Your task to perform on an android device: View the shopping cart on target.com. Image 0: 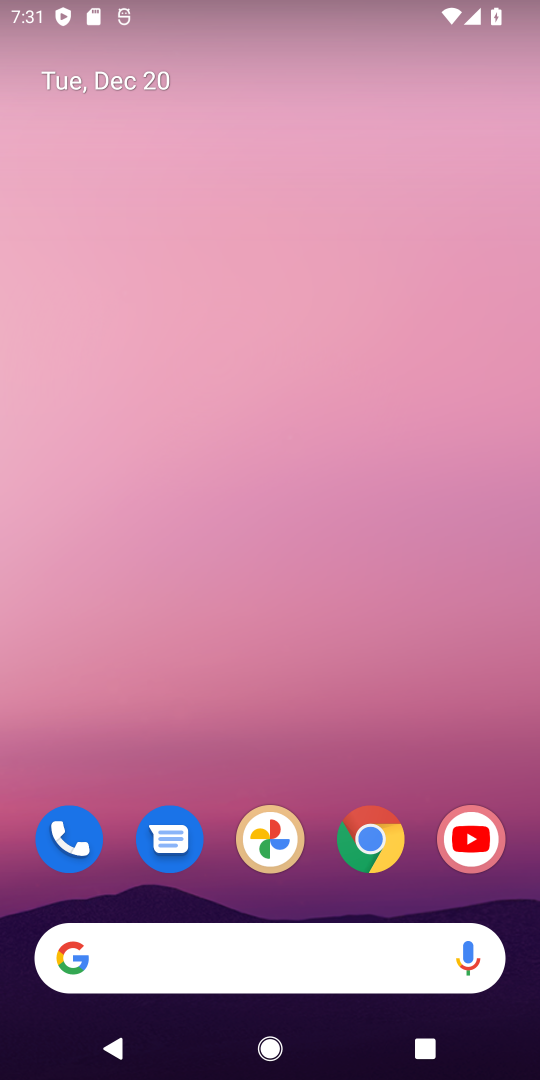
Step 0: click (205, 936)
Your task to perform on an android device: View the shopping cart on target.com. Image 1: 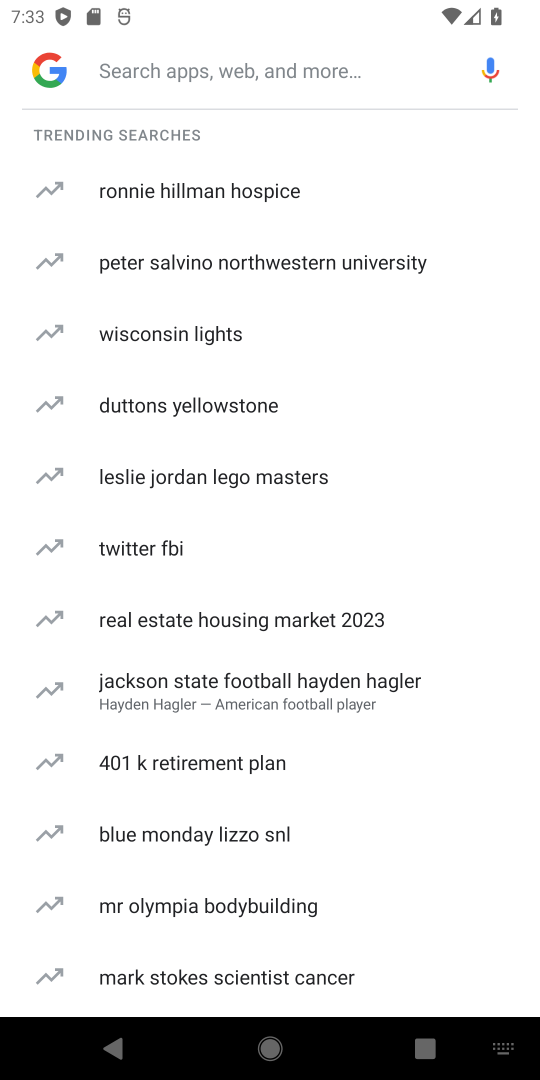
Step 1: type "target.com."
Your task to perform on an android device: View the shopping cart on target.com. Image 2: 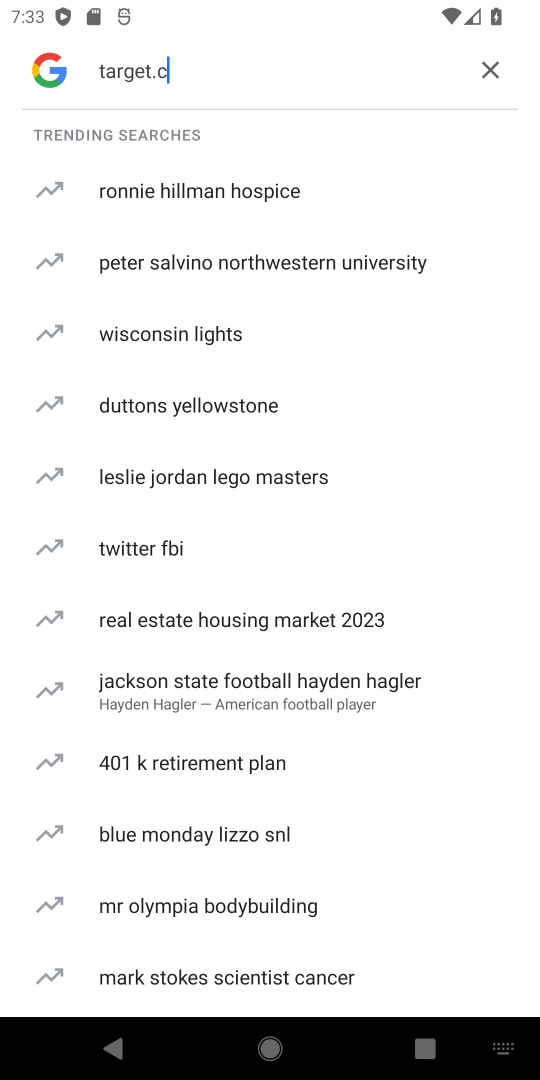
Step 2: type ""
Your task to perform on an android device: View the shopping cart on target.com. Image 3: 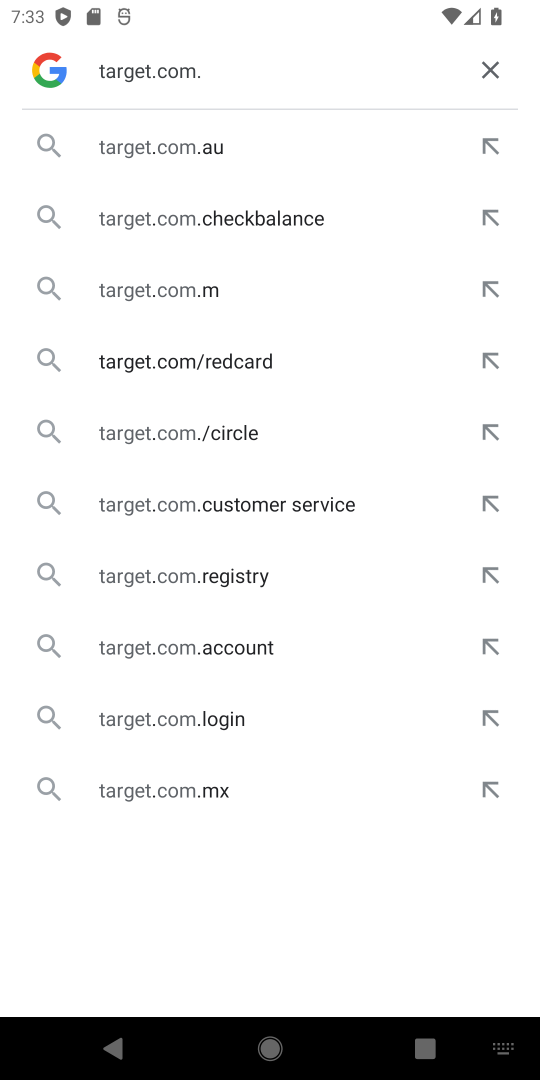
Step 3: click (493, 84)
Your task to perform on an android device: View the shopping cart on target.com. Image 4: 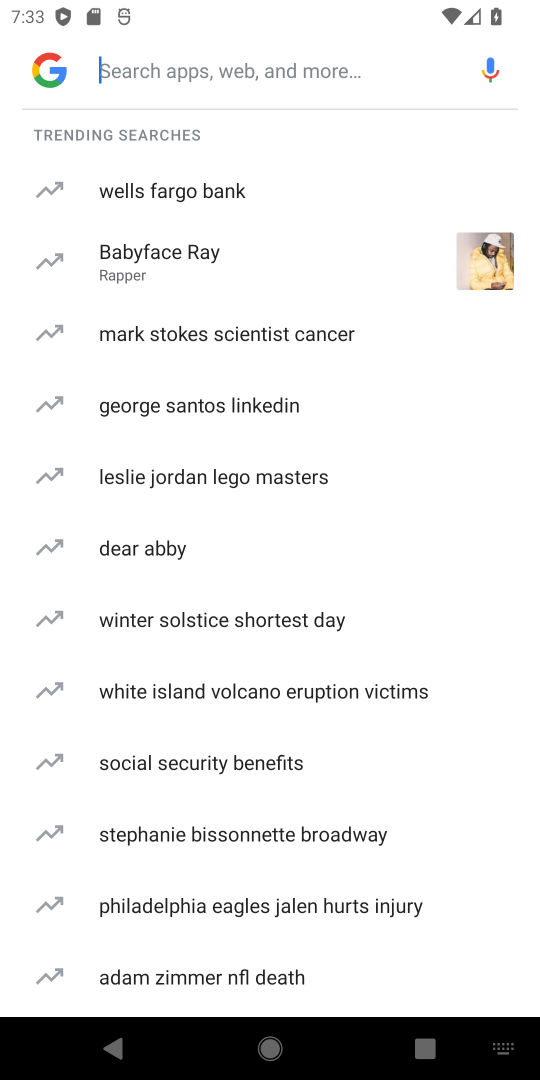
Step 4: type "target.com"
Your task to perform on an android device: View the shopping cart on target.com. Image 5: 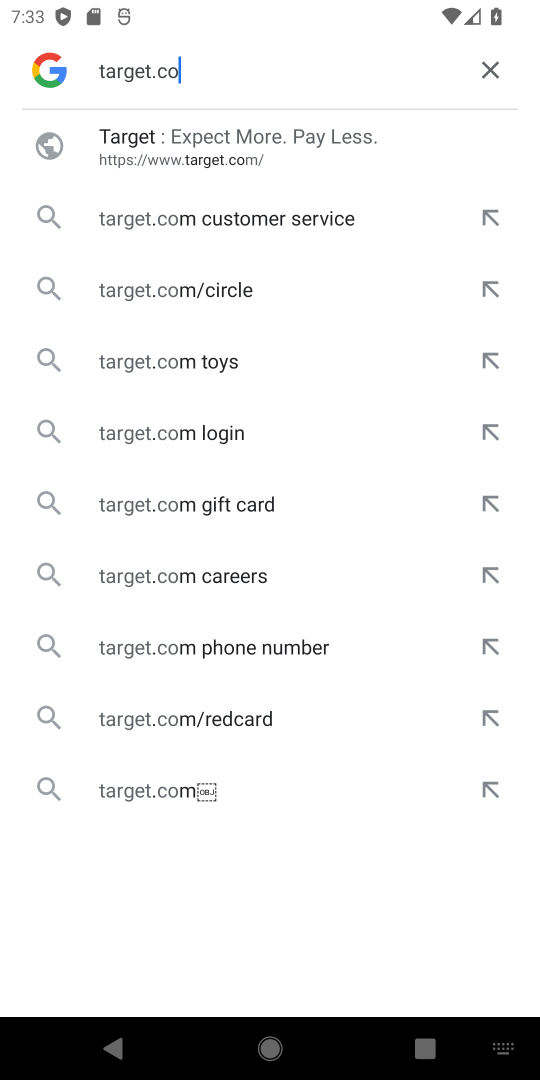
Step 5: type ""
Your task to perform on an android device: View the shopping cart on target.com. Image 6: 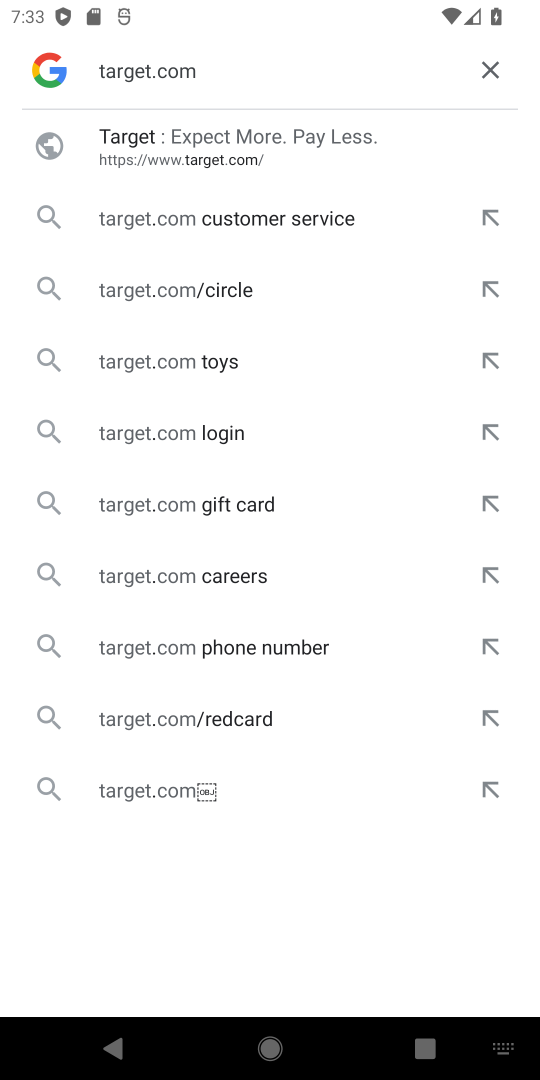
Step 6: click (185, 148)
Your task to perform on an android device: View the shopping cart on target.com. Image 7: 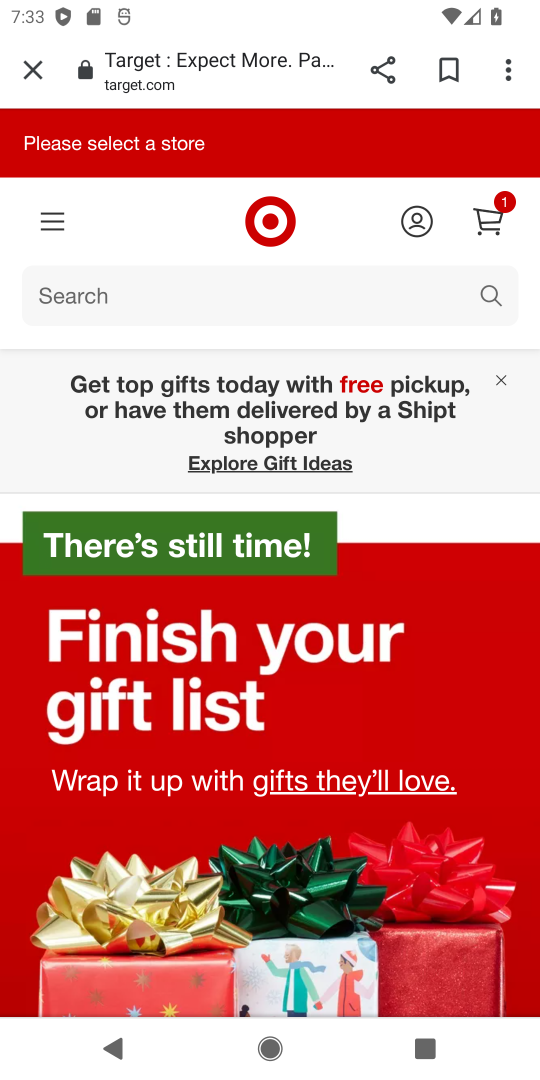
Step 7: click (491, 235)
Your task to perform on an android device: View the shopping cart on target.com. Image 8: 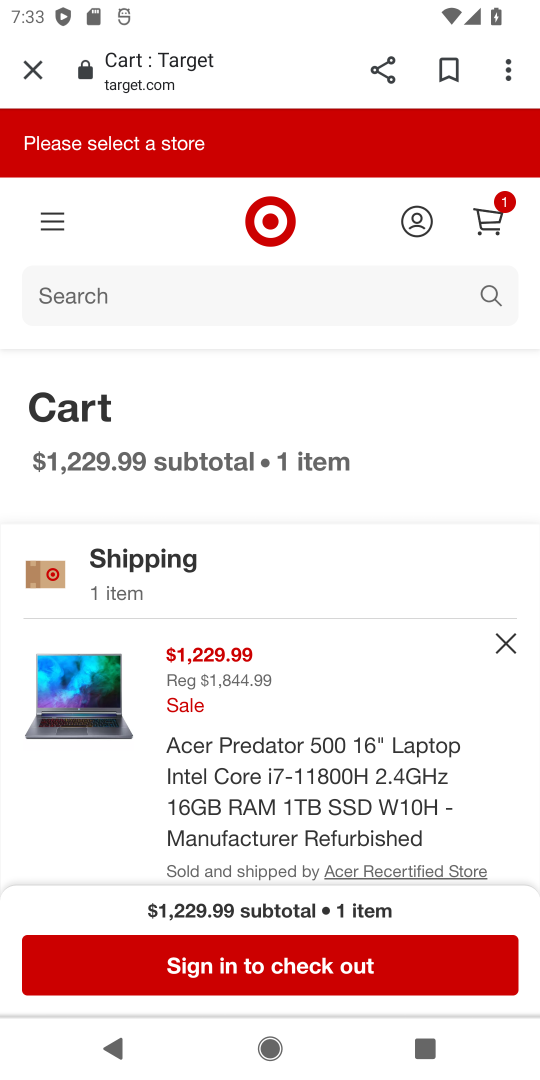
Step 8: task complete